Your task to perform on an android device: Open eBay Image 0: 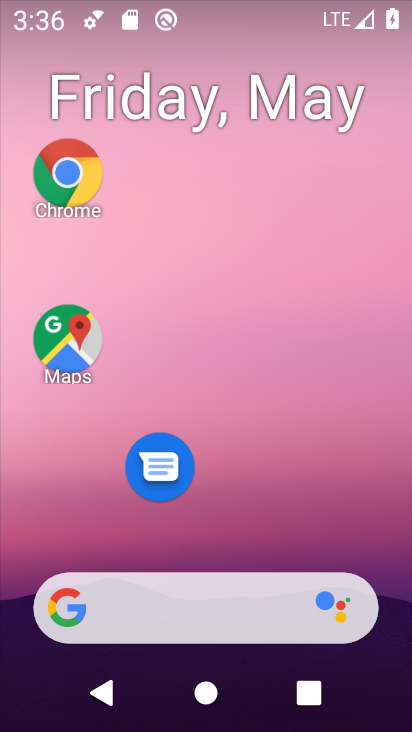
Step 0: click (60, 182)
Your task to perform on an android device: Open eBay Image 1: 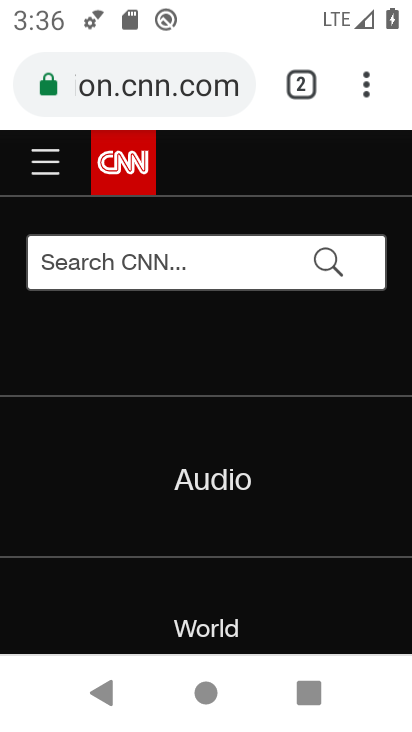
Step 1: click (300, 77)
Your task to perform on an android device: Open eBay Image 2: 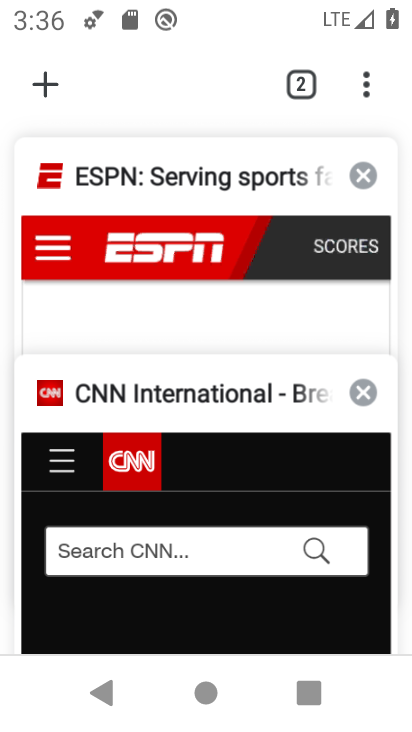
Step 2: click (36, 71)
Your task to perform on an android device: Open eBay Image 3: 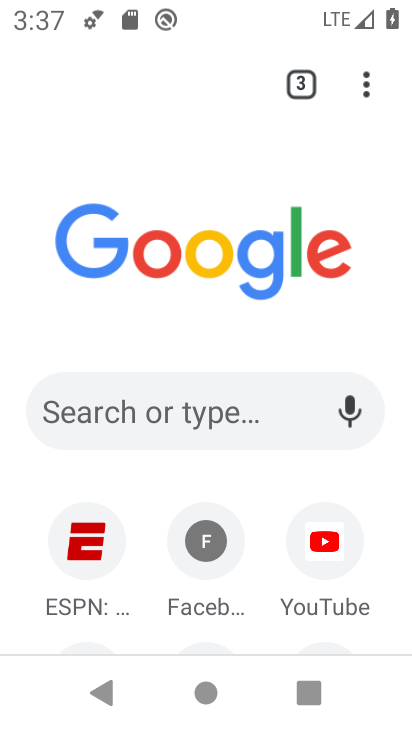
Step 3: drag from (253, 489) to (234, 161)
Your task to perform on an android device: Open eBay Image 4: 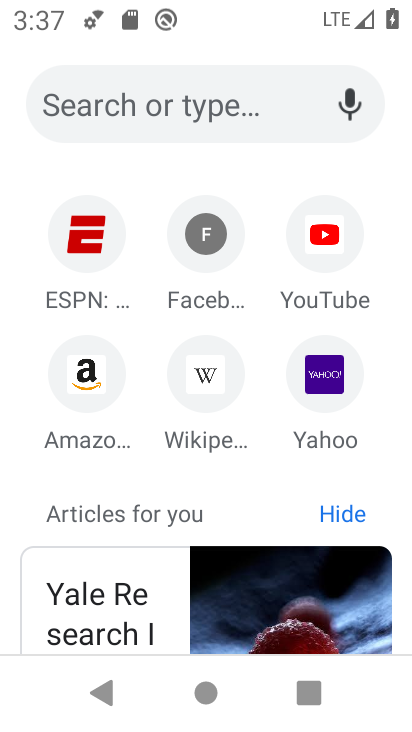
Step 4: click (167, 102)
Your task to perform on an android device: Open eBay Image 5: 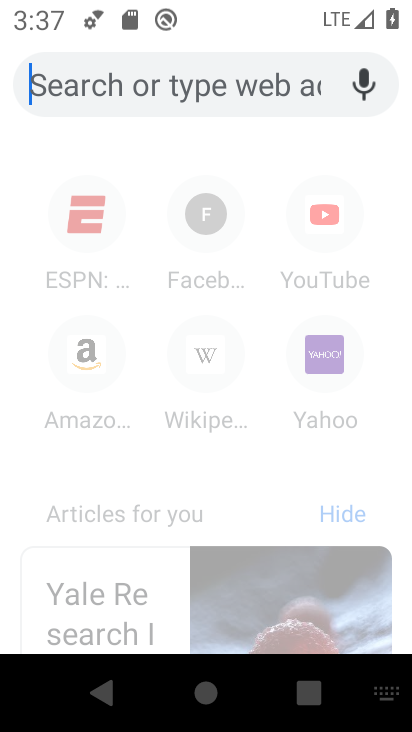
Step 5: type "eBay"
Your task to perform on an android device: Open eBay Image 6: 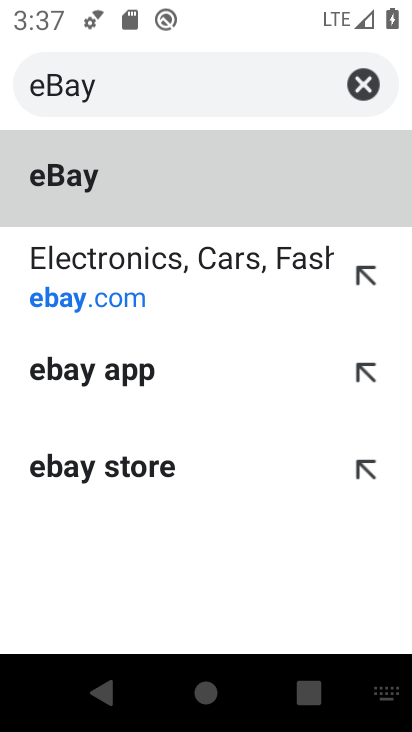
Step 6: click (113, 166)
Your task to perform on an android device: Open eBay Image 7: 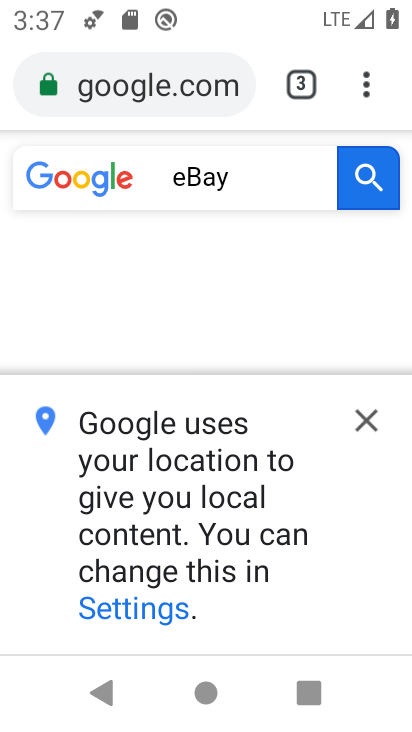
Step 7: click (375, 426)
Your task to perform on an android device: Open eBay Image 8: 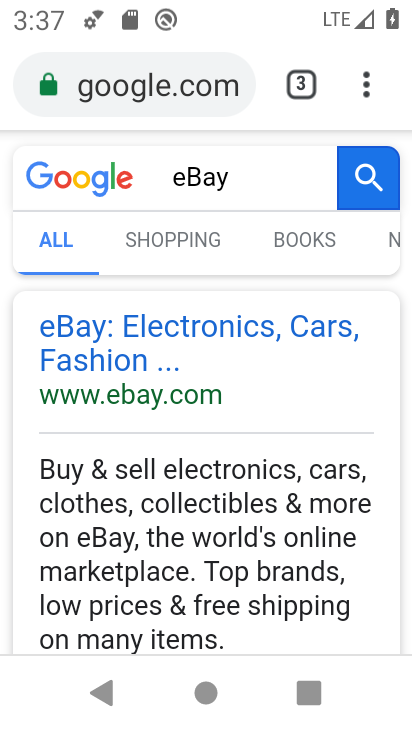
Step 8: click (100, 334)
Your task to perform on an android device: Open eBay Image 9: 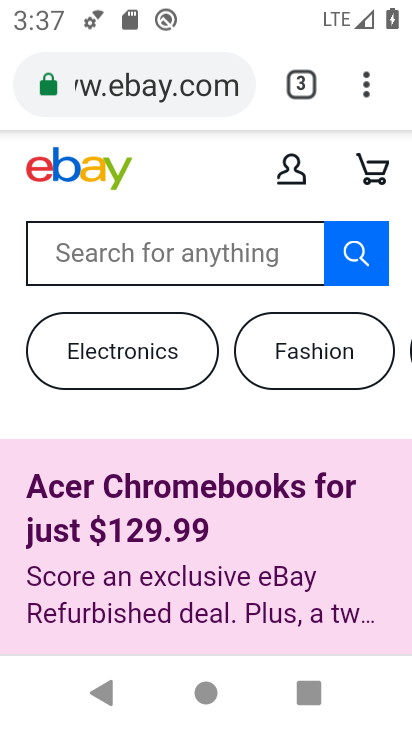
Step 9: task complete